Your task to perform on an android device: toggle sleep mode Image 0: 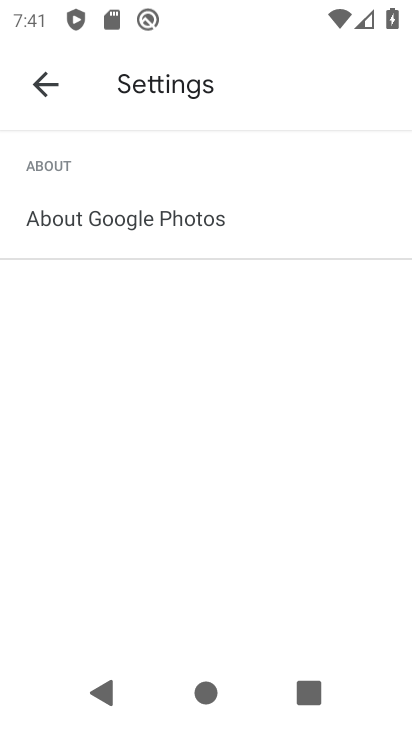
Step 0: press home button
Your task to perform on an android device: toggle sleep mode Image 1: 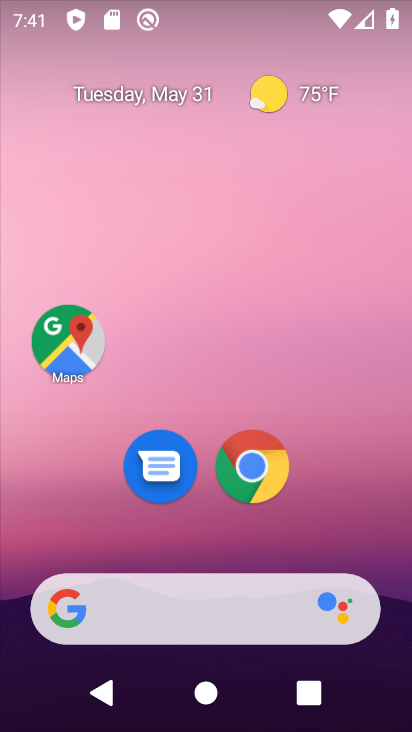
Step 1: drag from (254, 512) to (268, 92)
Your task to perform on an android device: toggle sleep mode Image 2: 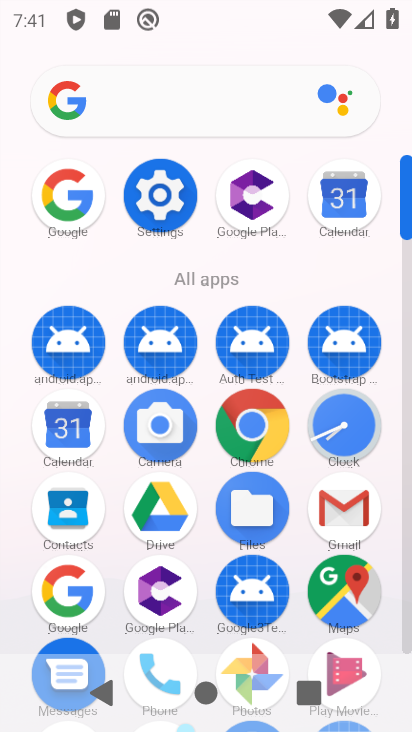
Step 2: click (148, 208)
Your task to perform on an android device: toggle sleep mode Image 3: 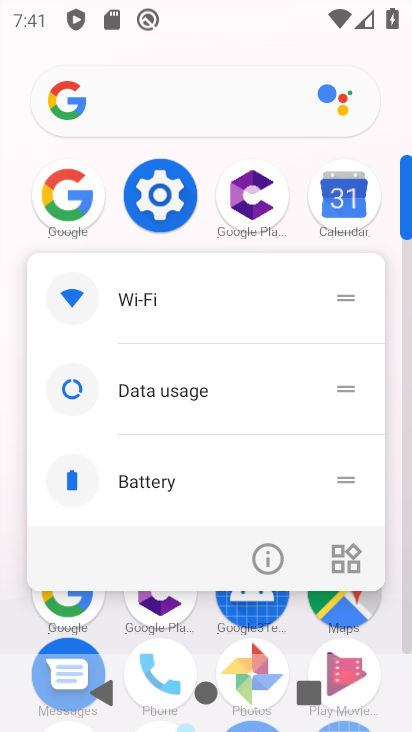
Step 3: click (254, 560)
Your task to perform on an android device: toggle sleep mode Image 4: 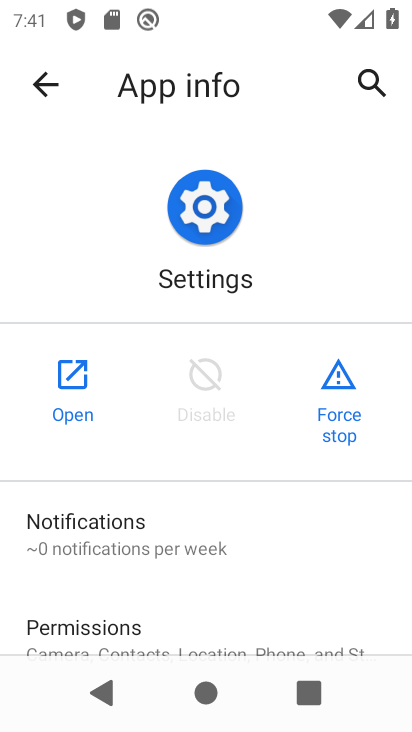
Step 4: click (76, 373)
Your task to perform on an android device: toggle sleep mode Image 5: 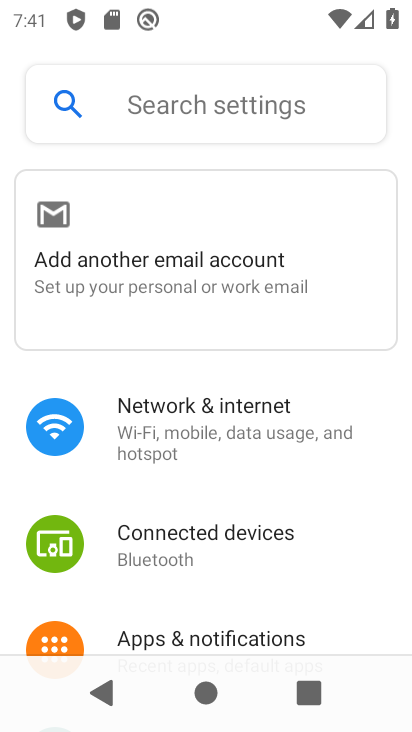
Step 5: drag from (229, 509) to (288, 260)
Your task to perform on an android device: toggle sleep mode Image 6: 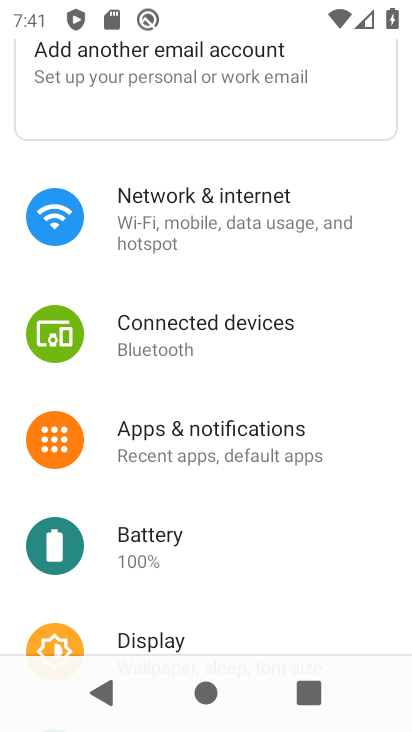
Step 6: click (178, 625)
Your task to perform on an android device: toggle sleep mode Image 7: 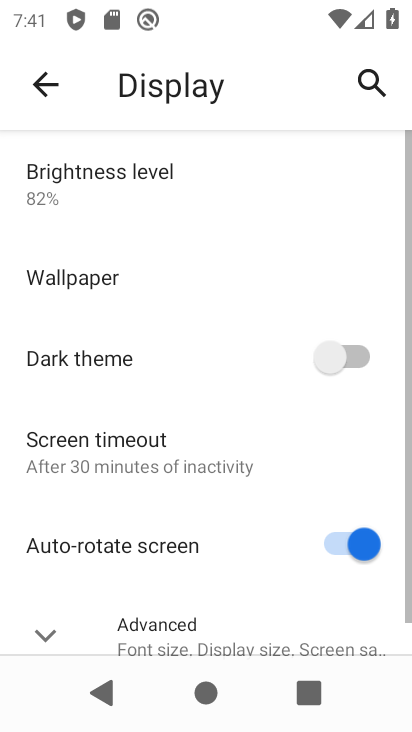
Step 7: drag from (233, 562) to (256, 238)
Your task to perform on an android device: toggle sleep mode Image 8: 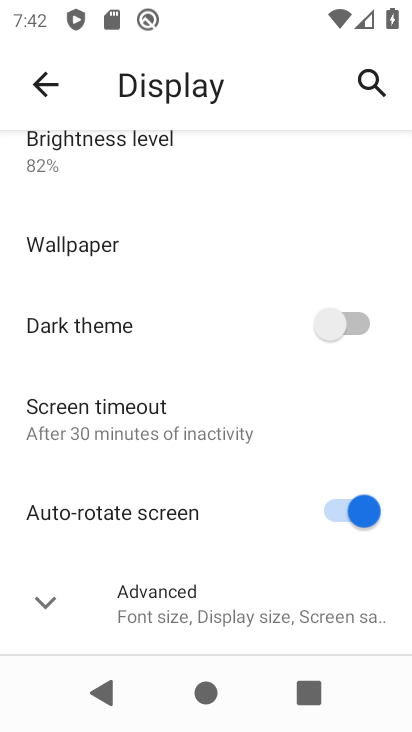
Step 8: click (178, 427)
Your task to perform on an android device: toggle sleep mode Image 9: 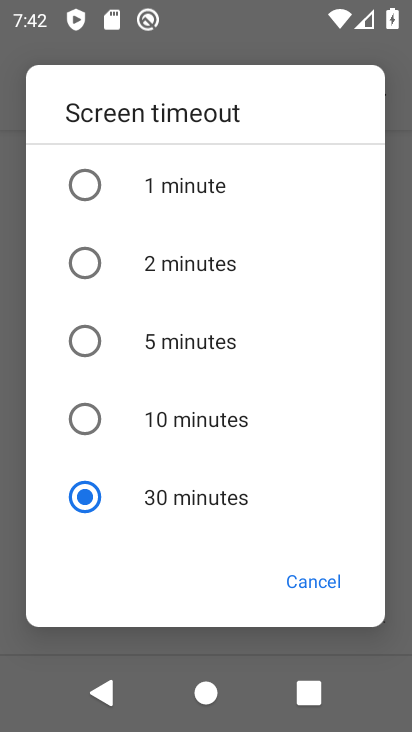
Step 9: click (95, 348)
Your task to perform on an android device: toggle sleep mode Image 10: 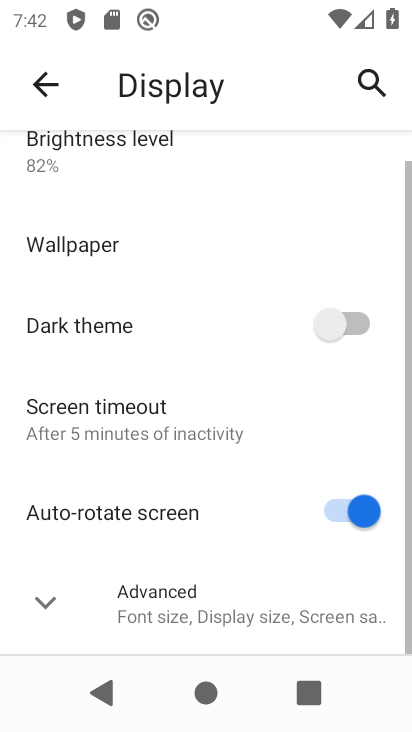
Step 10: task complete